Your task to perform on an android device: What's the news in Myanmar? Image 0: 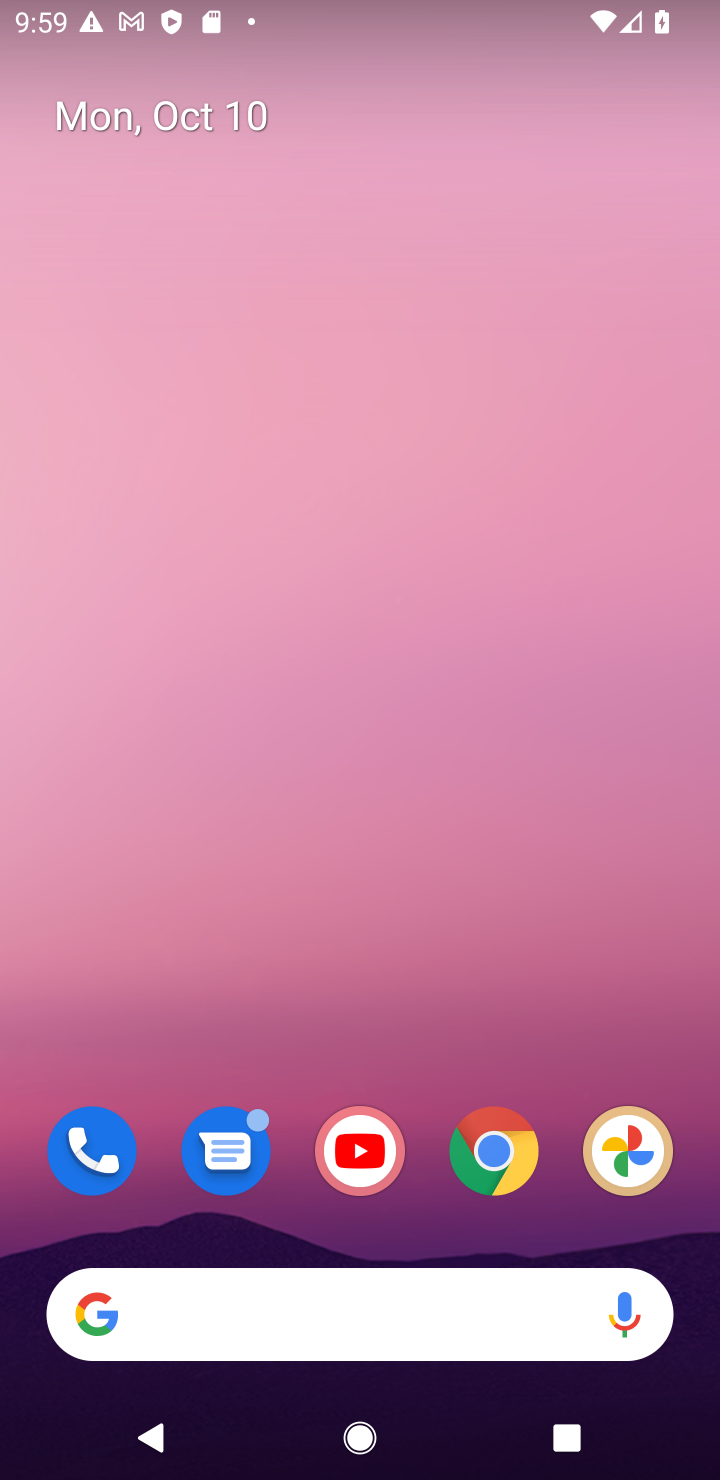
Step 0: click (481, 1148)
Your task to perform on an android device: What's the news in Myanmar? Image 1: 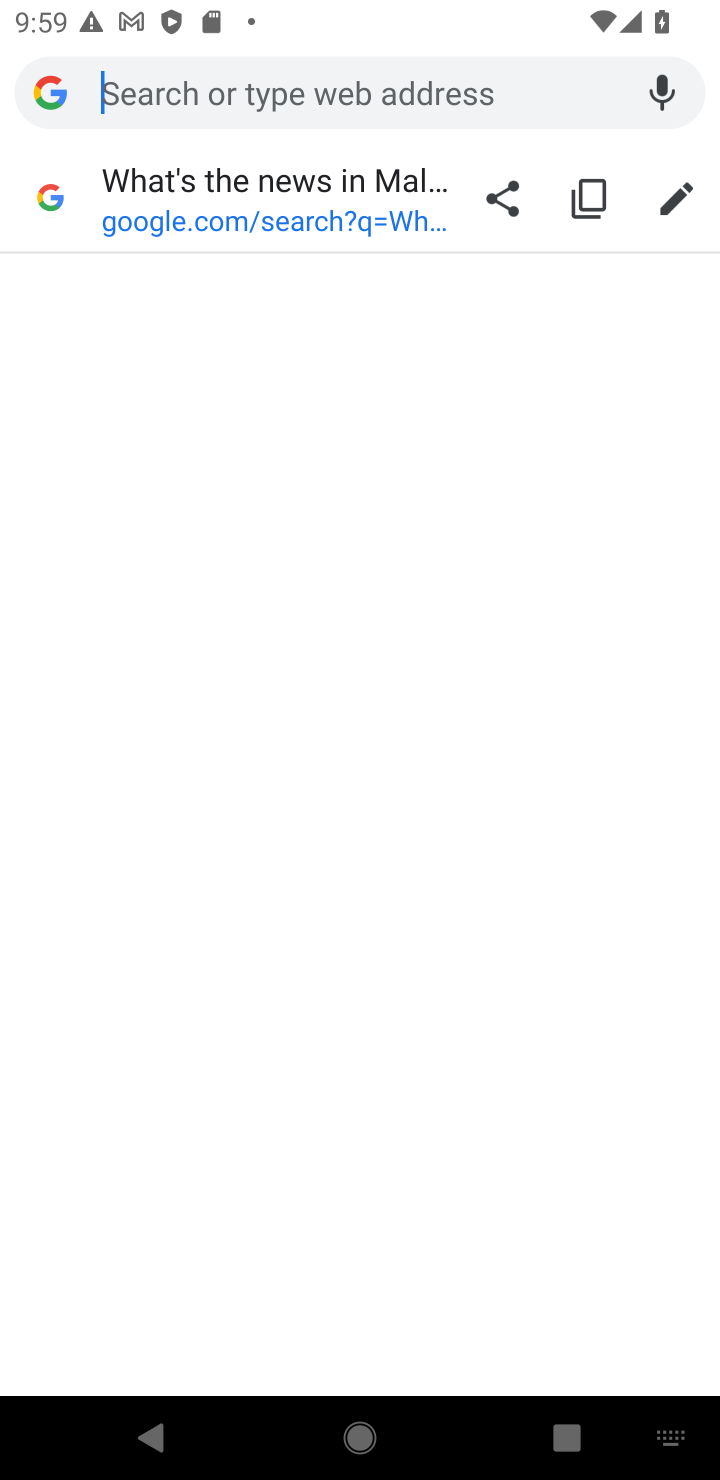
Step 1: type "What's the news in Myanmar?"
Your task to perform on an android device: What's the news in Myanmar? Image 2: 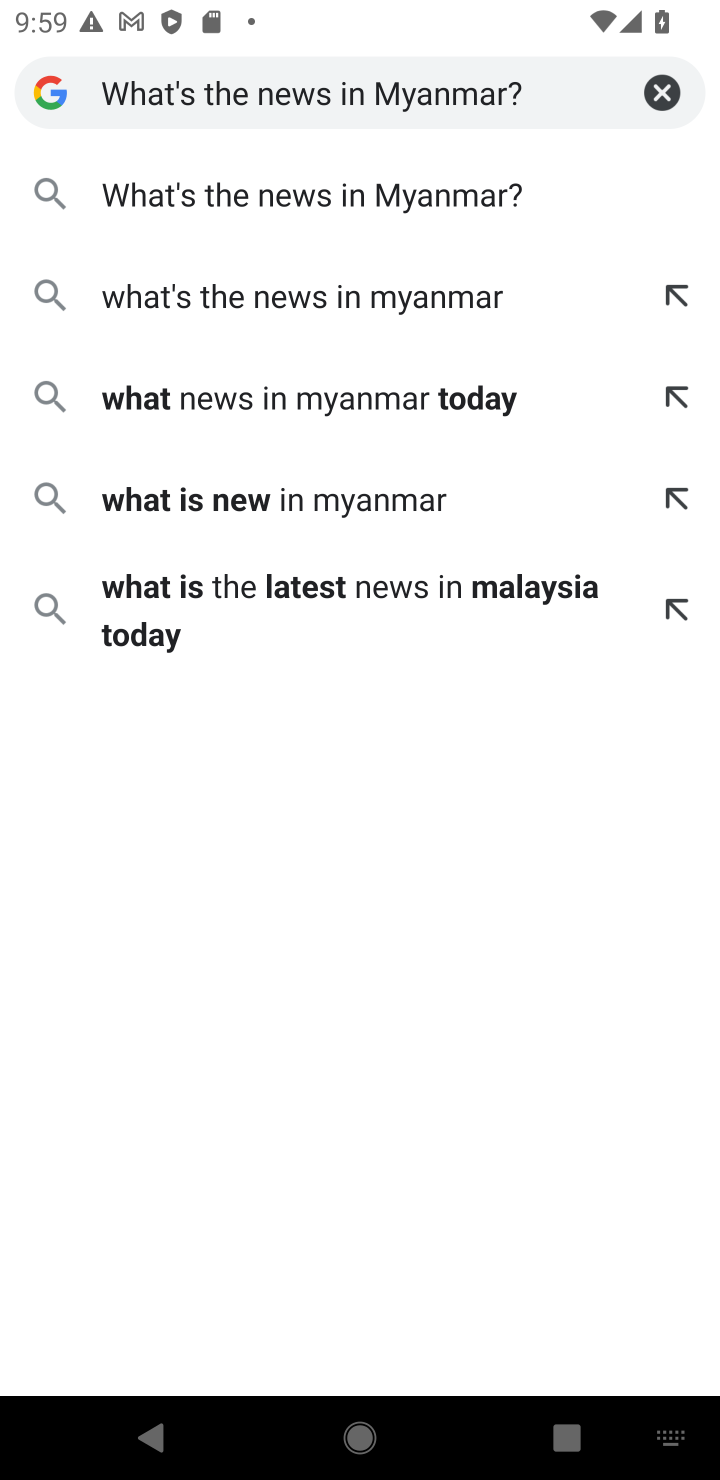
Step 2: click (385, 212)
Your task to perform on an android device: What's the news in Myanmar? Image 3: 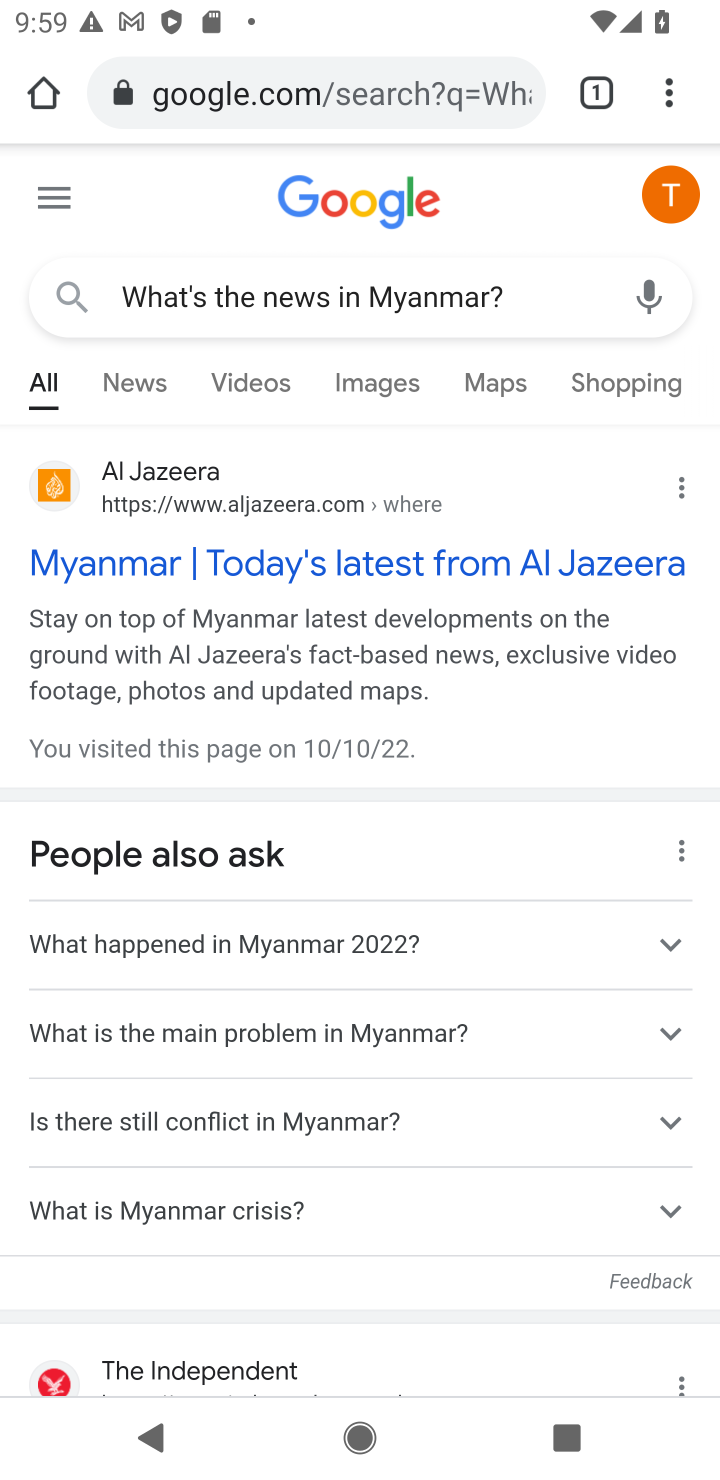
Step 3: click (147, 371)
Your task to perform on an android device: What's the news in Myanmar? Image 4: 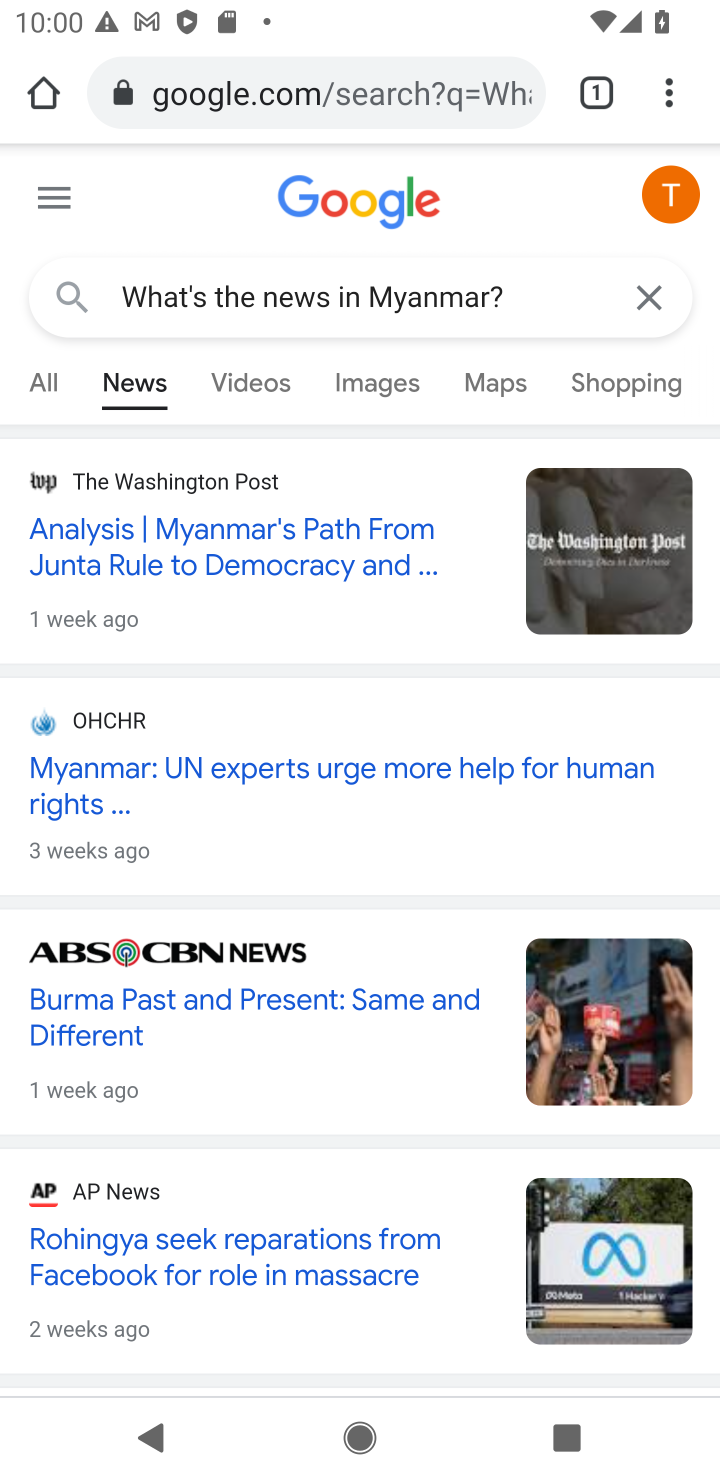
Step 4: task complete